Your task to perform on an android device: Go to location settings Image 0: 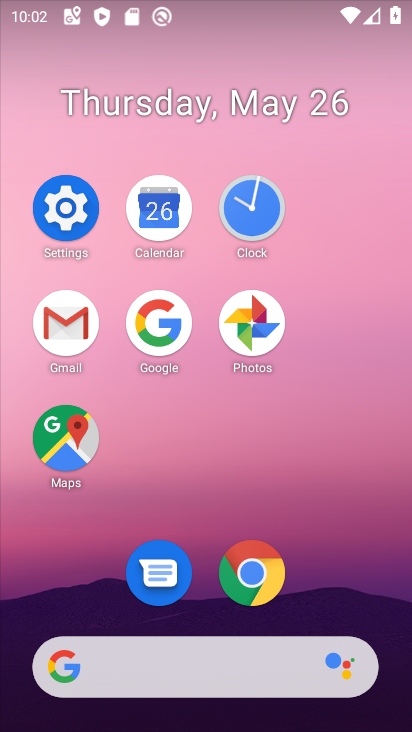
Step 0: click (70, 220)
Your task to perform on an android device: Go to location settings Image 1: 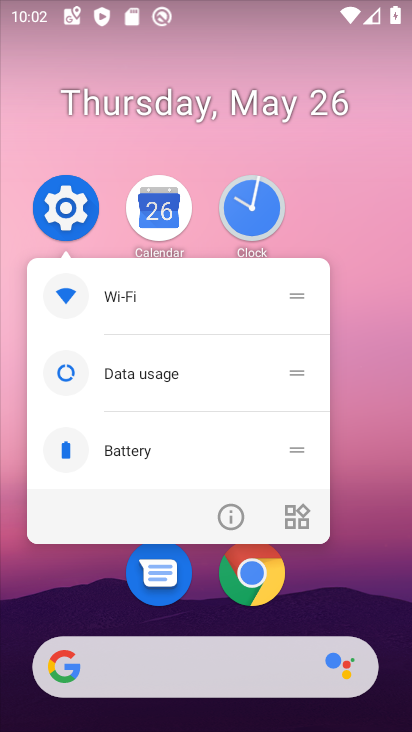
Step 1: click (84, 205)
Your task to perform on an android device: Go to location settings Image 2: 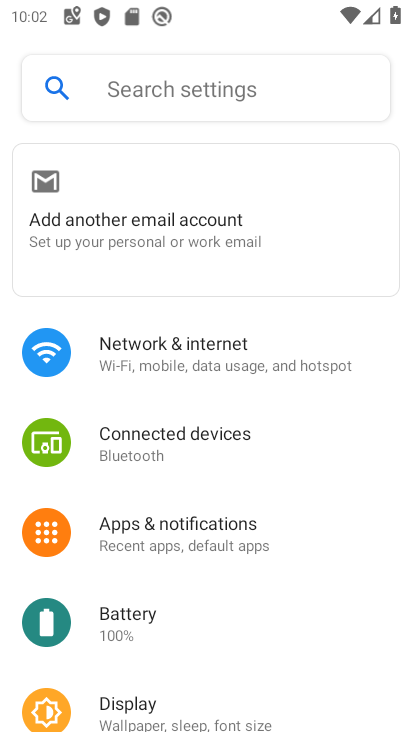
Step 2: drag from (244, 595) to (235, 233)
Your task to perform on an android device: Go to location settings Image 3: 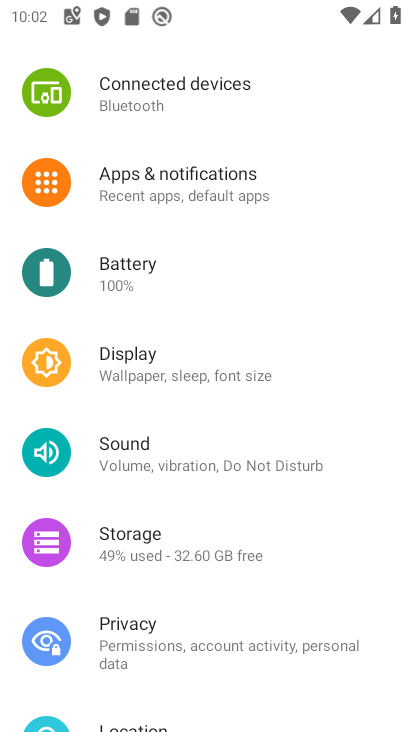
Step 3: drag from (256, 590) to (201, 166)
Your task to perform on an android device: Go to location settings Image 4: 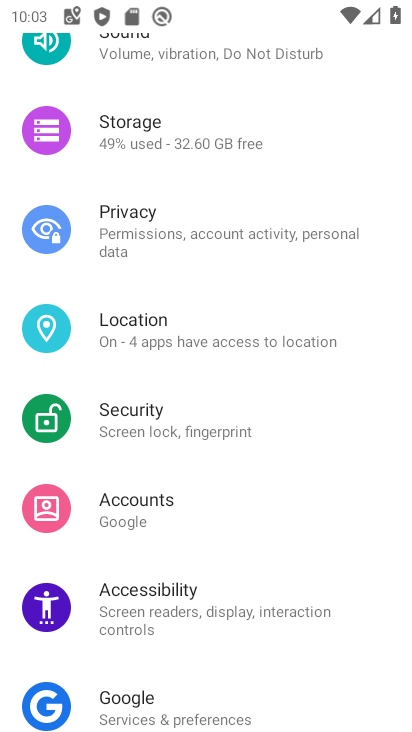
Step 4: click (179, 354)
Your task to perform on an android device: Go to location settings Image 5: 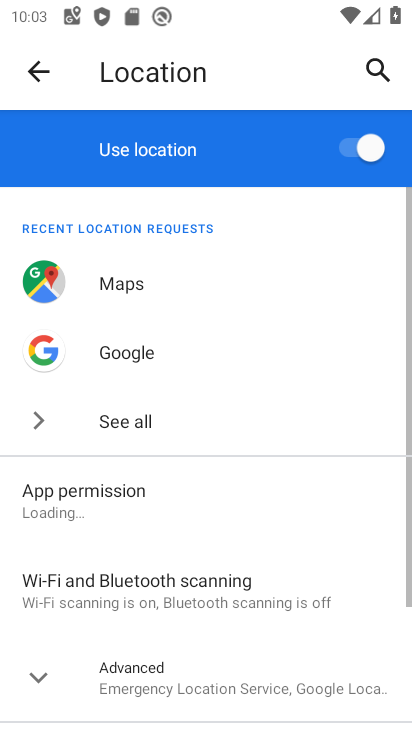
Step 5: task complete